Your task to perform on an android device: empty trash in google photos Image 0: 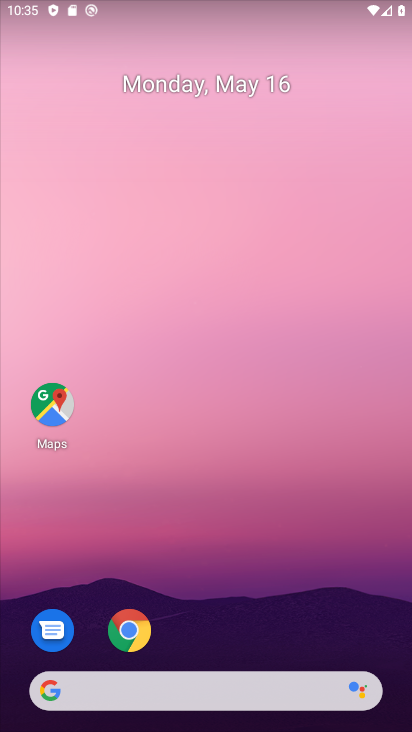
Step 0: drag from (242, 616) to (143, 144)
Your task to perform on an android device: empty trash in google photos Image 1: 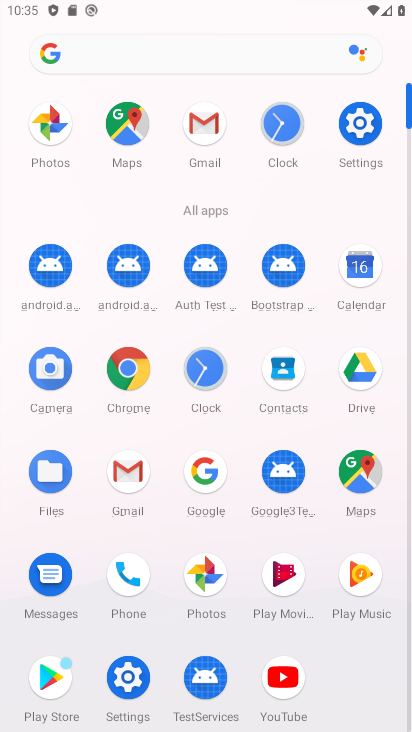
Step 1: click (48, 131)
Your task to perform on an android device: empty trash in google photos Image 2: 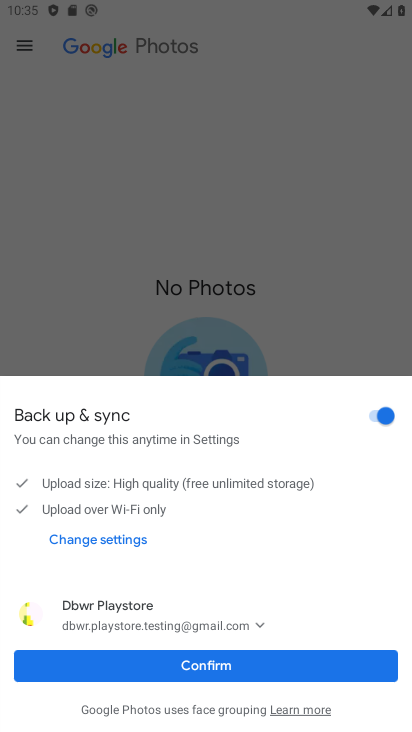
Step 2: click (229, 667)
Your task to perform on an android device: empty trash in google photos Image 3: 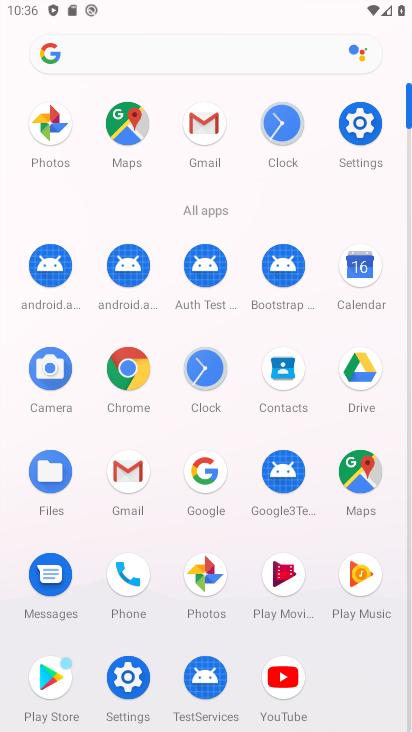
Step 3: click (63, 132)
Your task to perform on an android device: empty trash in google photos Image 4: 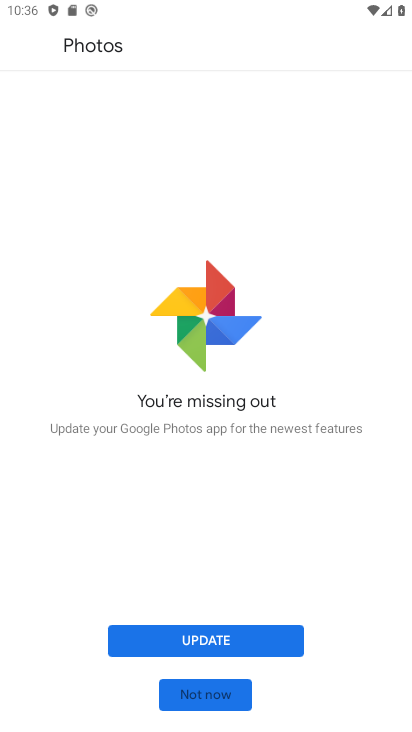
Step 4: click (212, 641)
Your task to perform on an android device: empty trash in google photos Image 5: 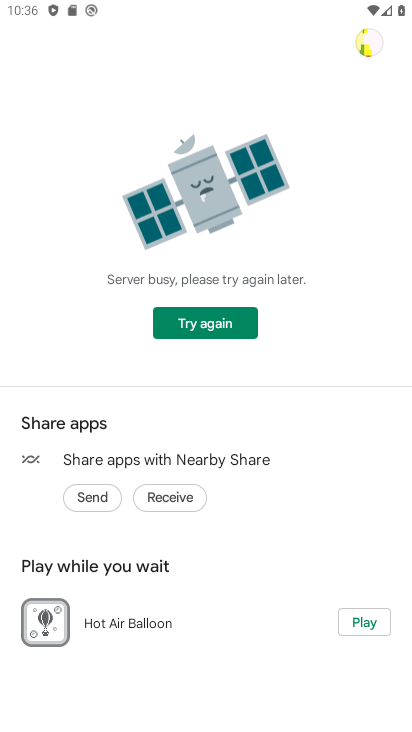
Step 5: task complete